Your task to perform on an android device: Go to privacy settings Image 0: 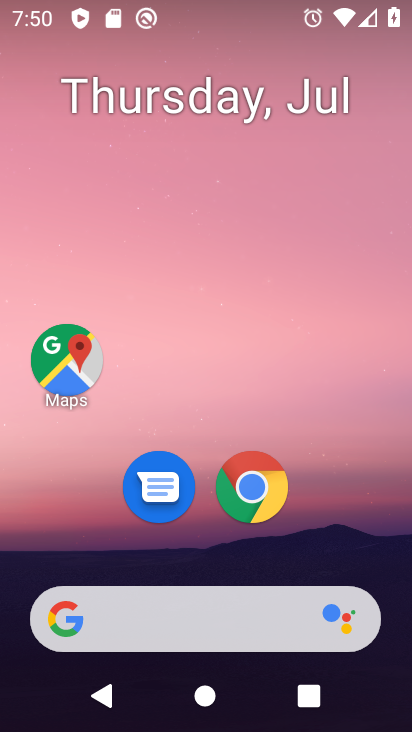
Step 0: drag from (230, 603) to (227, 308)
Your task to perform on an android device: Go to privacy settings Image 1: 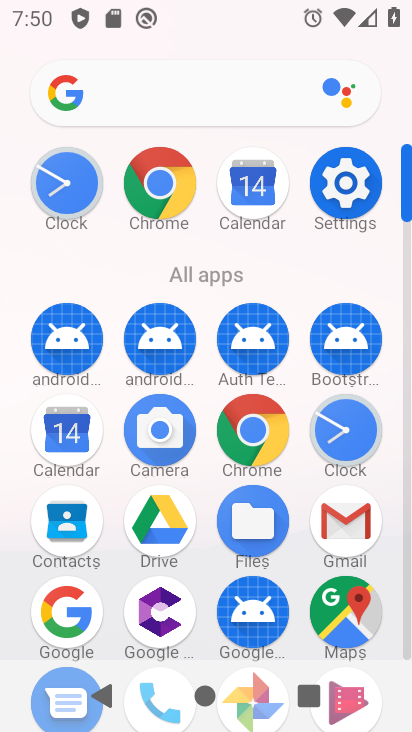
Step 1: click (327, 183)
Your task to perform on an android device: Go to privacy settings Image 2: 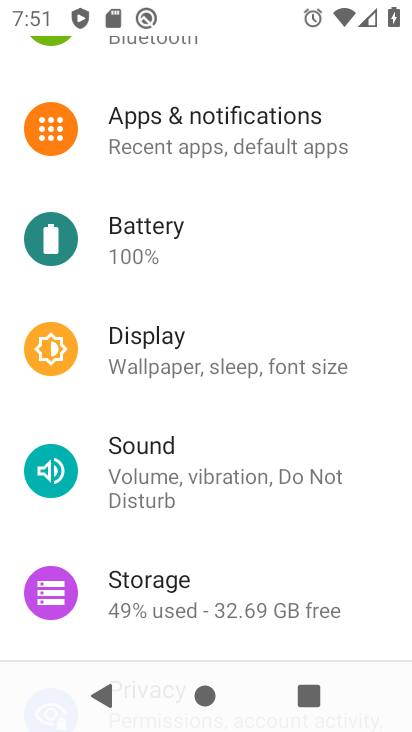
Step 2: drag from (223, 520) to (240, 402)
Your task to perform on an android device: Go to privacy settings Image 3: 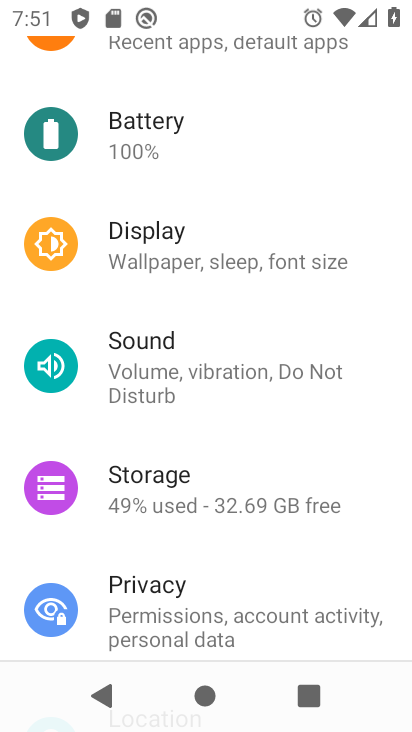
Step 3: click (208, 596)
Your task to perform on an android device: Go to privacy settings Image 4: 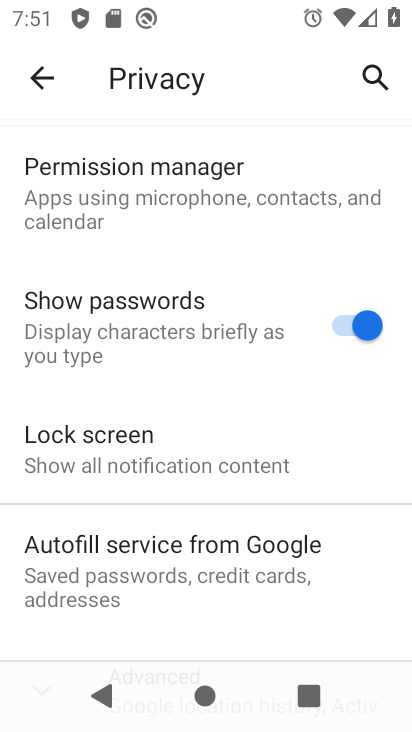
Step 4: task complete